Your task to perform on an android device: Check the weather Image 0: 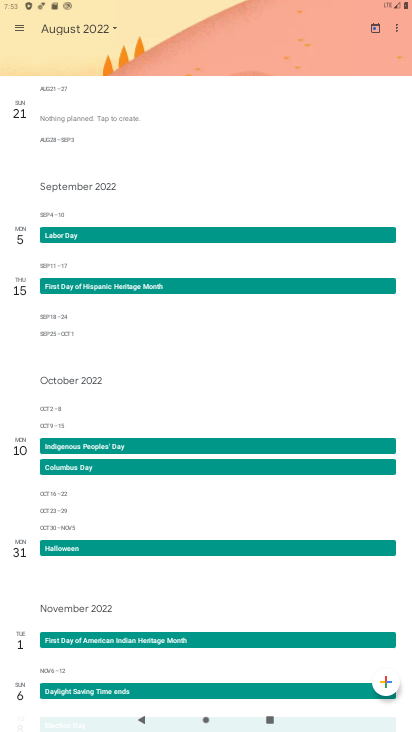
Step 0: press home button
Your task to perform on an android device: Check the weather Image 1: 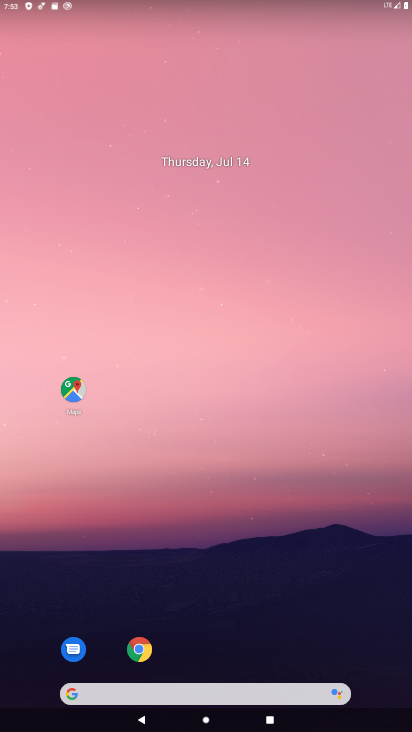
Step 1: drag from (290, 550) to (223, 1)
Your task to perform on an android device: Check the weather Image 2: 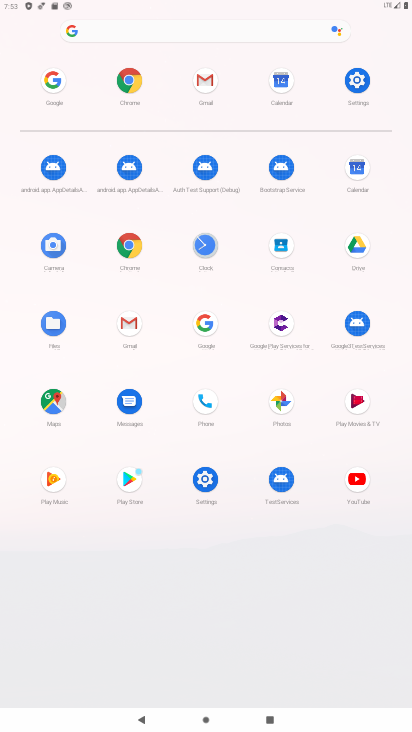
Step 2: click (196, 342)
Your task to perform on an android device: Check the weather Image 3: 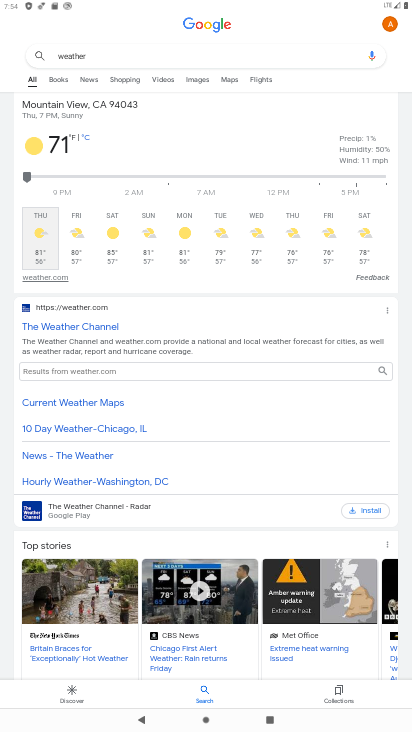
Step 3: task complete